Your task to perform on an android device: Show me recent news Image 0: 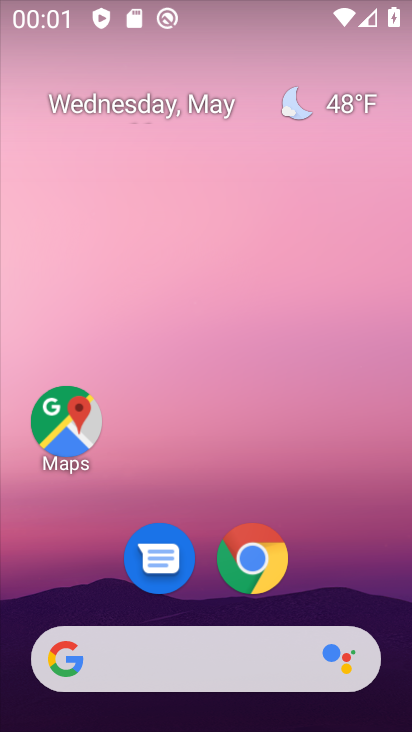
Step 0: drag from (359, 479) to (355, 137)
Your task to perform on an android device: Show me recent news Image 1: 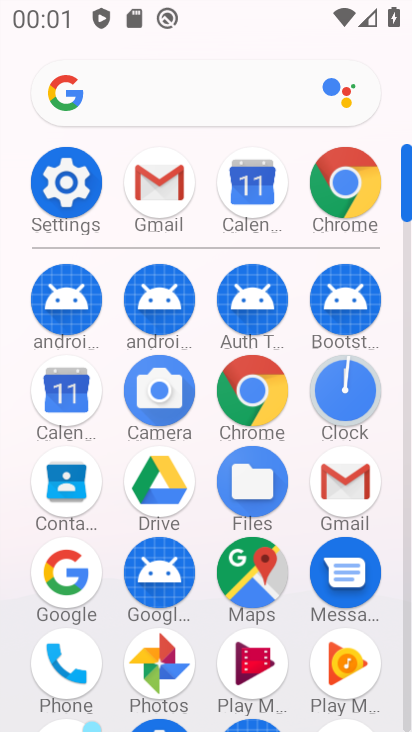
Step 1: click (254, 411)
Your task to perform on an android device: Show me recent news Image 2: 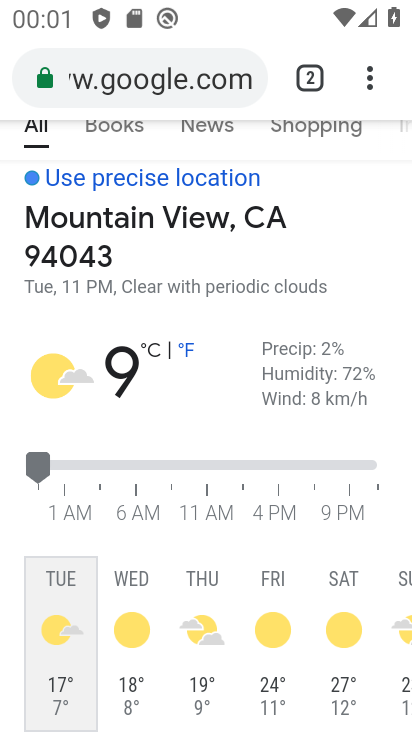
Step 2: click (203, 82)
Your task to perform on an android device: Show me recent news Image 3: 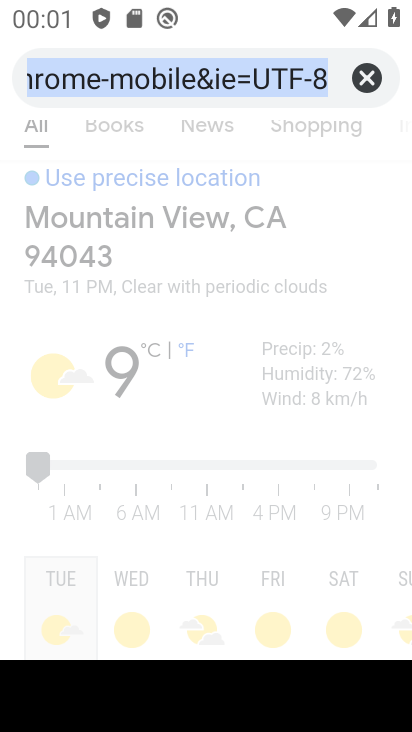
Step 3: click (354, 73)
Your task to perform on an android device: Show me recent news Image 4: 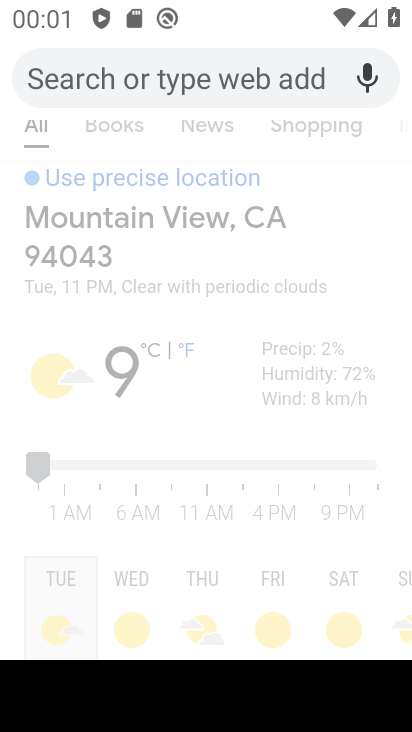
Step 4: type "show me recent news"
Your task to perform on an android device: Show me recent news Image 5: 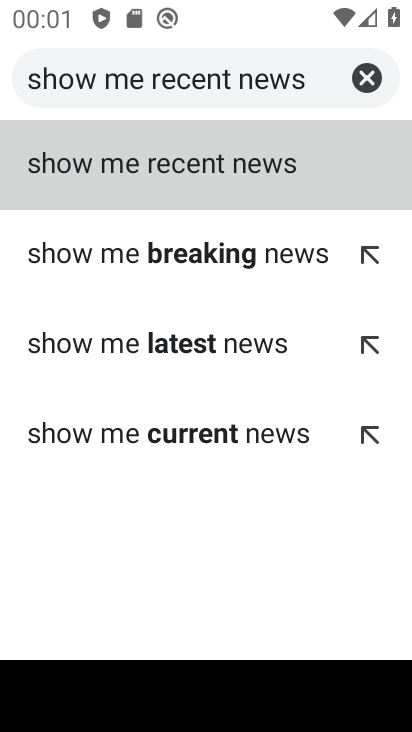
Step 5: click (209, 166)
Your task to perform on an android device: Show me recent news Image 6: 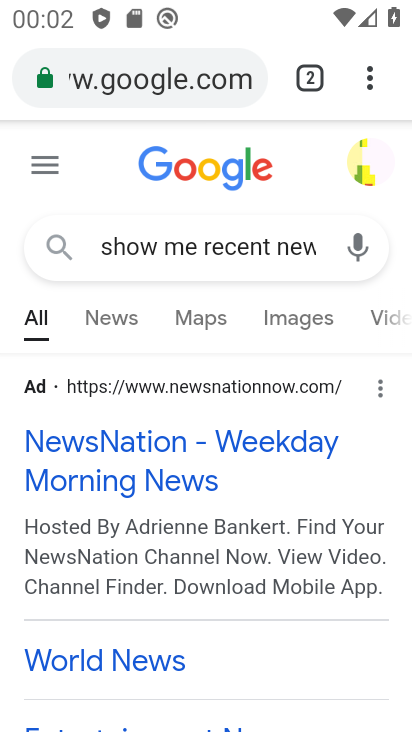
Step 6: task complete